Your task to perform on an android device: turn off priority inbox in the gmail app Image 0: 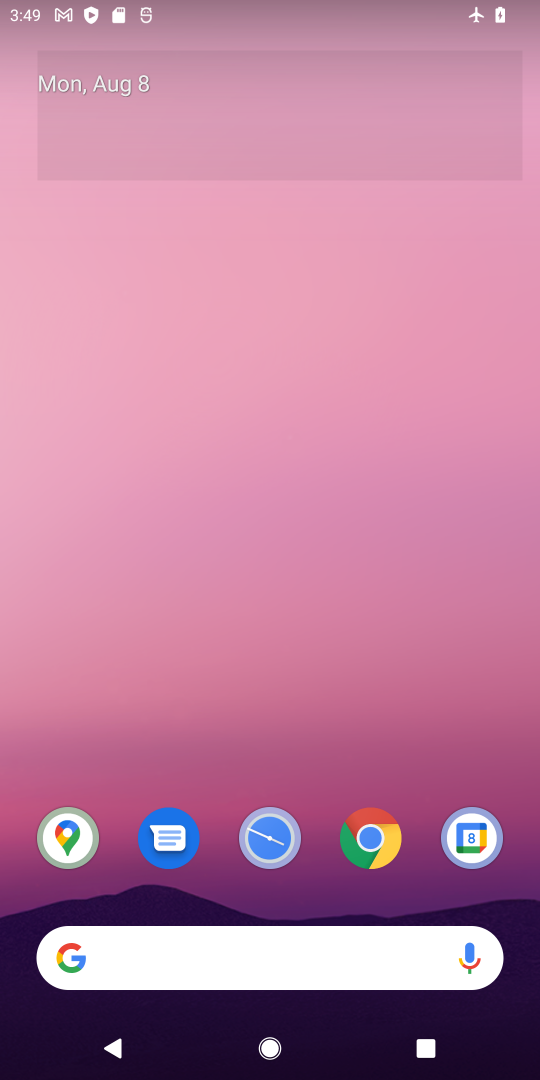
Step 0: drag from (292, 956) to (333, 536)
Your task to perform on an android device: turn off priority inbox in the gmail app Image 1: 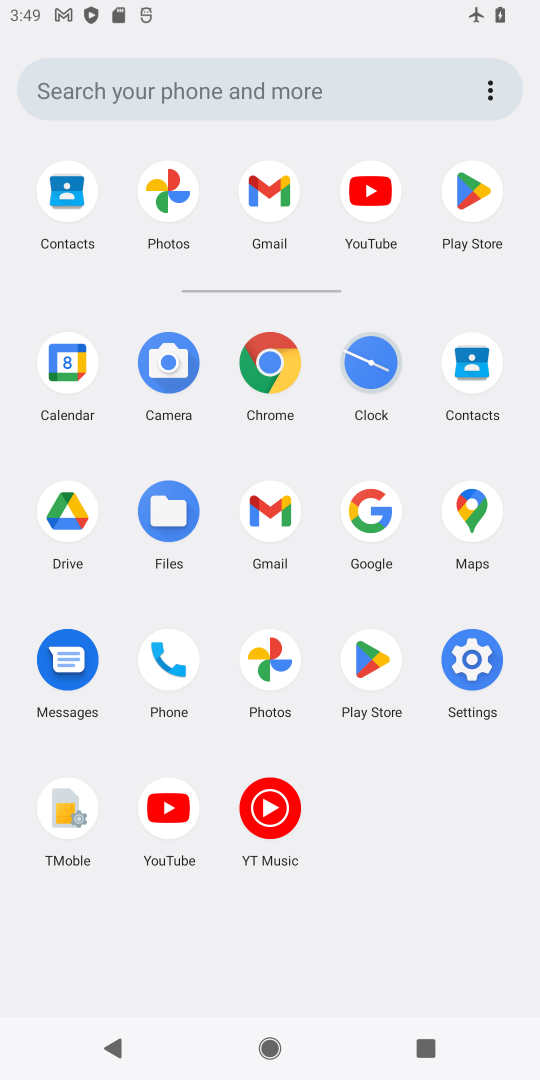
Step 1: click (270, 513)
Your task to perform on an android device: turn off priority inbox in the gmail app Image 2: 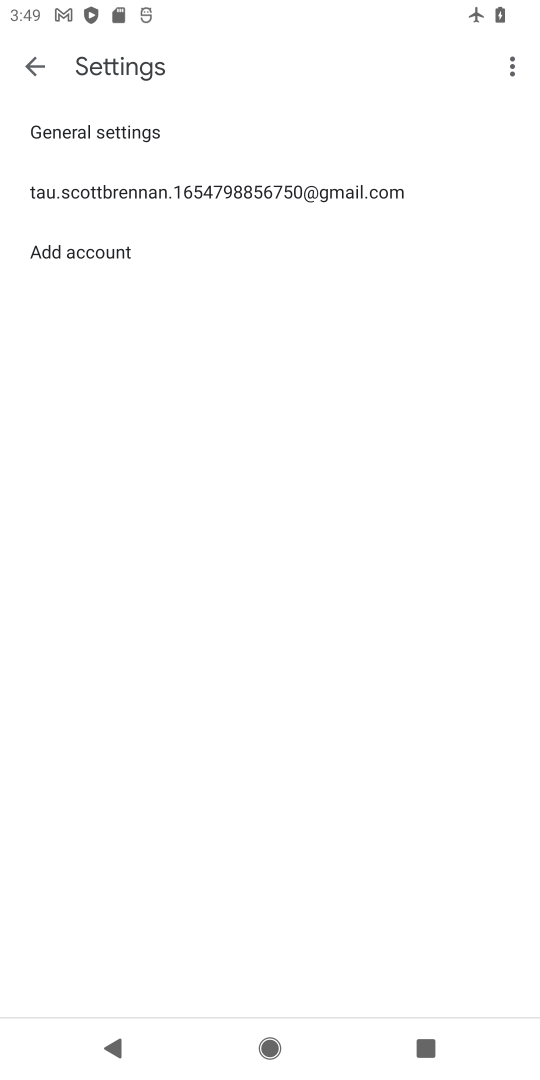
Step 2: click (280, 193)
Your task to perform on an android device: turn off priority inbox in the gmail app Image 3: 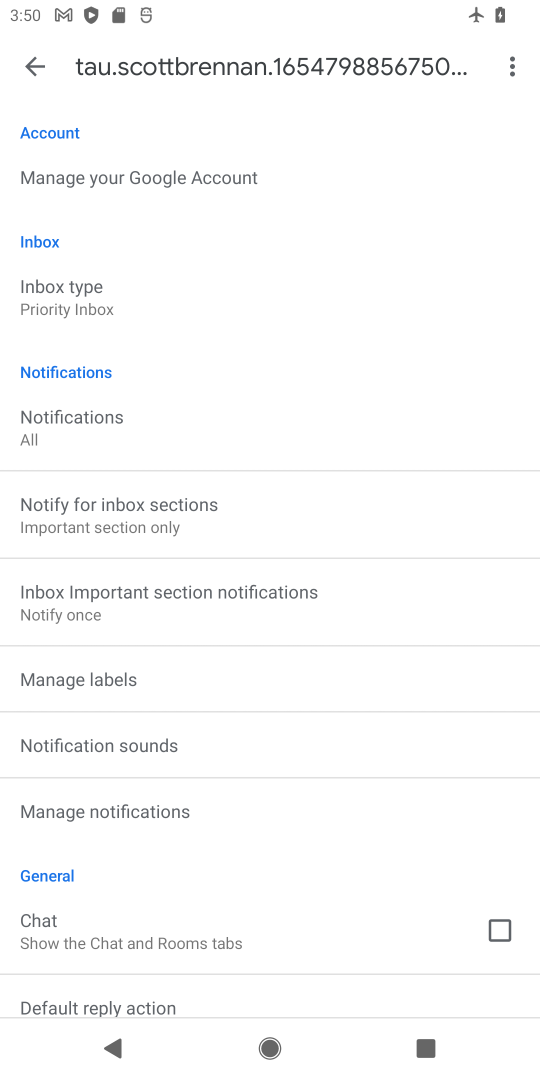
Step 3: click (93, 311)
Your task to perform on an android device: turn off priority inbox in the gmail app Image 4: 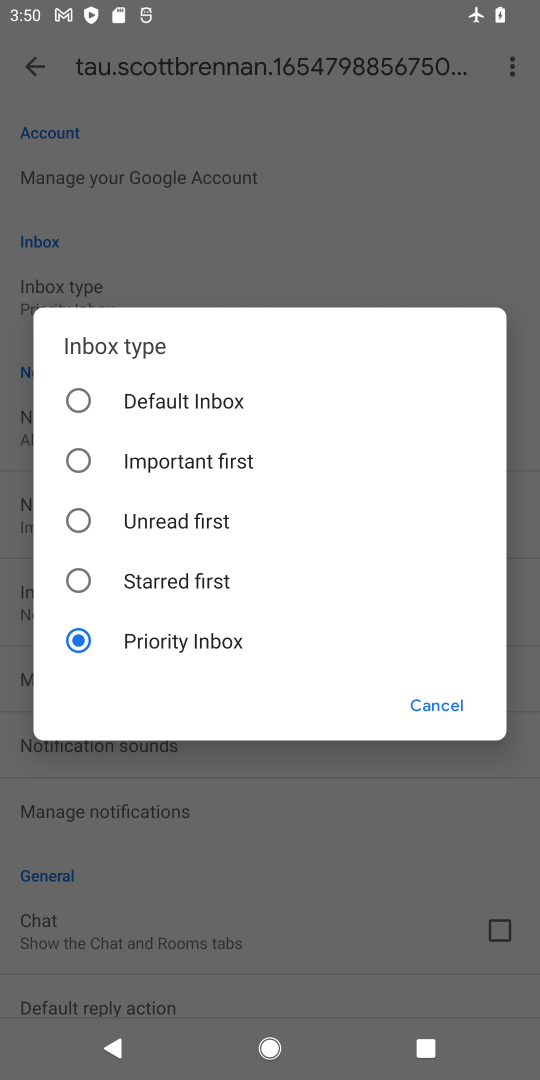
Step 4: click (74, 573)
Your task to perform on an android device: turn off priority inbox in the gmail app Image 5: 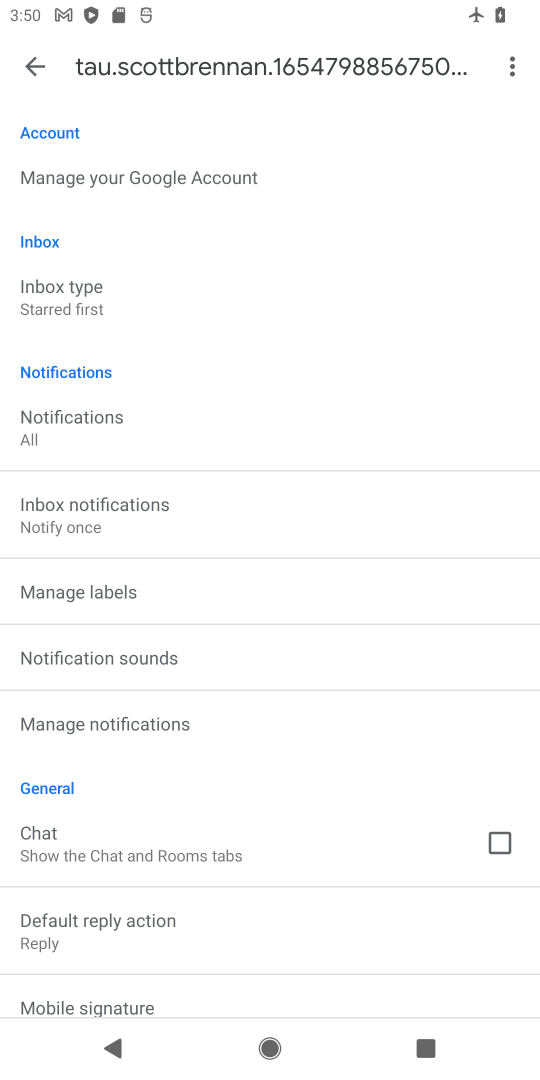
Step 5: task complete